Your task to perform on an android device: Search for "usb-a to usb-b" on amazon.com, select the first entry, add it to the cart, then select checkout. Image 0: 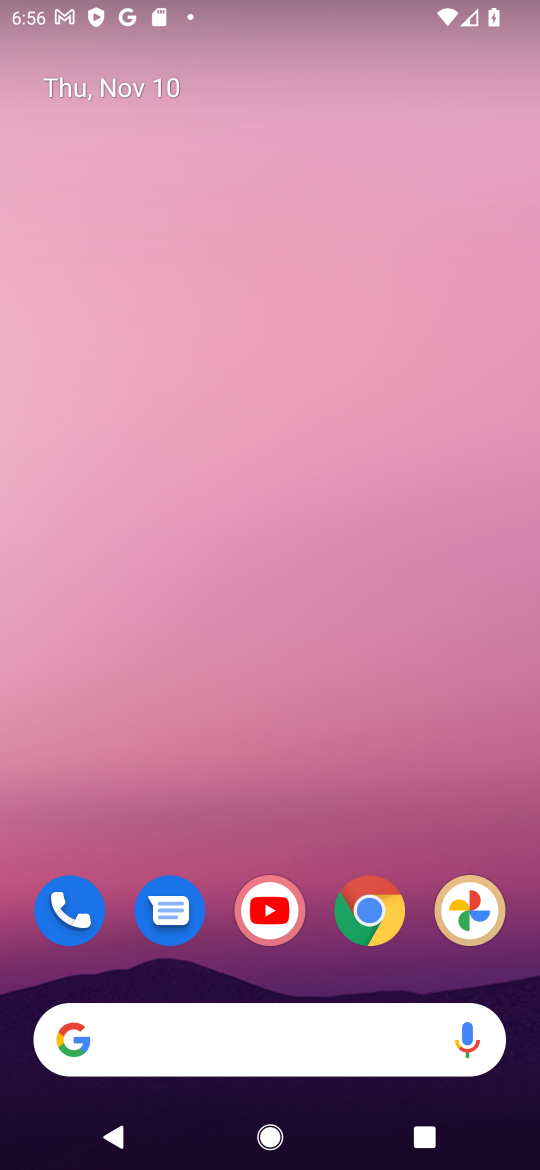
Step 0: click (369, 907)
Your task to perform on an android device: Search for "usb-a to usb-b" on amazon.com, select the first entry, add it to the cart, then select checkout. Image 1: 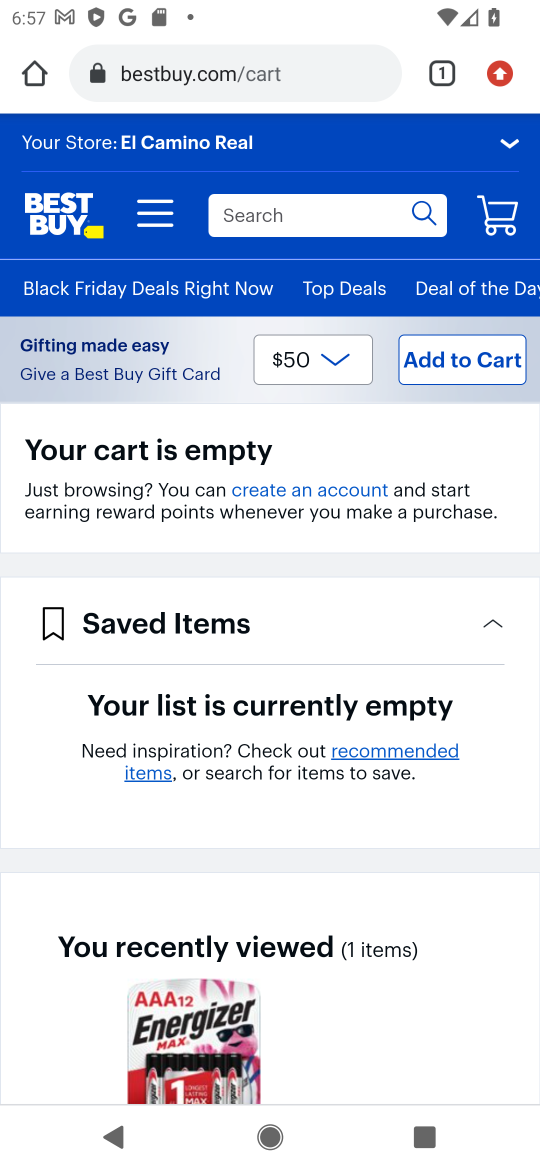
Step 1: click (274, 68)
Your task to perform on an android device: Search for "usb-a to usb-b" on amazon.com, select the first entry, add it to the cart, then select checkout. Image 2: 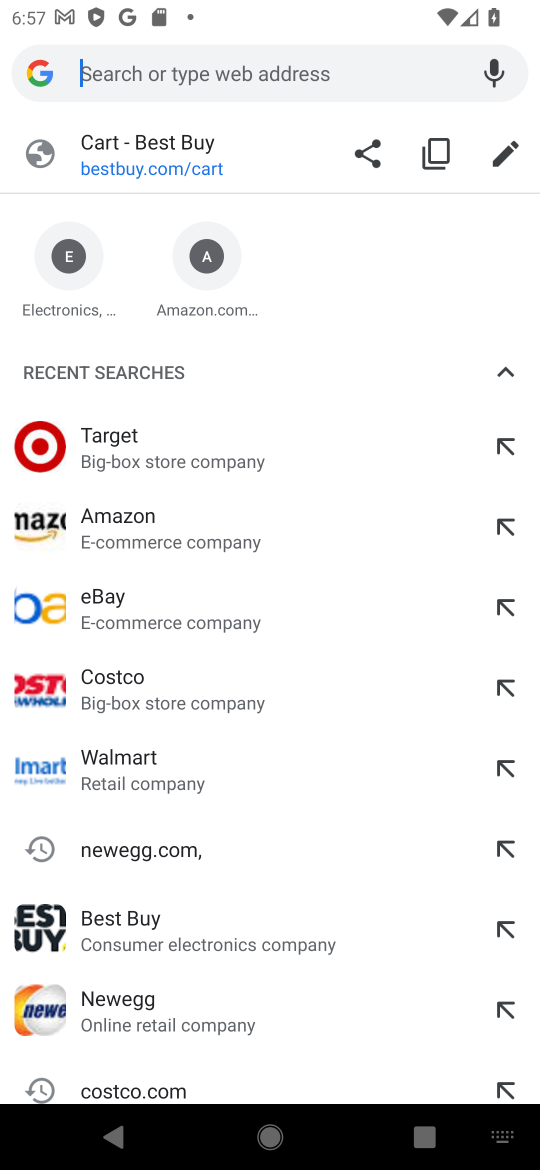
Step 2: type "amazon.com"
Your task to perform on an android device: Search for "usb-a to usb-b" on amazon.com, select the first entry, add it to the cart, then select checkout. Image 3: 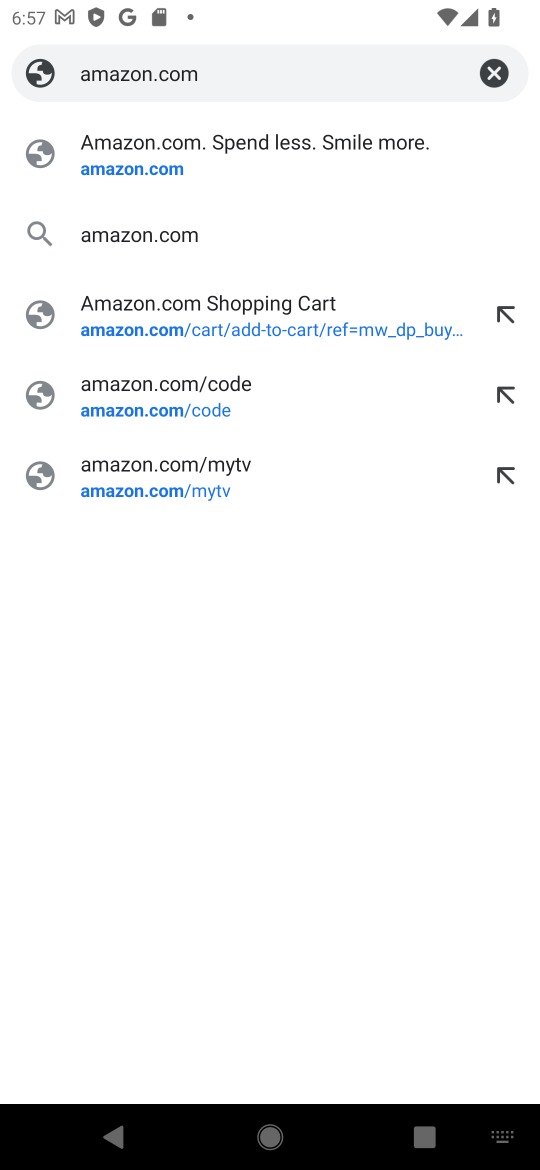
Step 3: click (182, 237)
Your task to perform on an android device: Search for "usb-a to usb-b" on amazon.com, select the first entry, add it to the cart, then select checkout. Image 4: 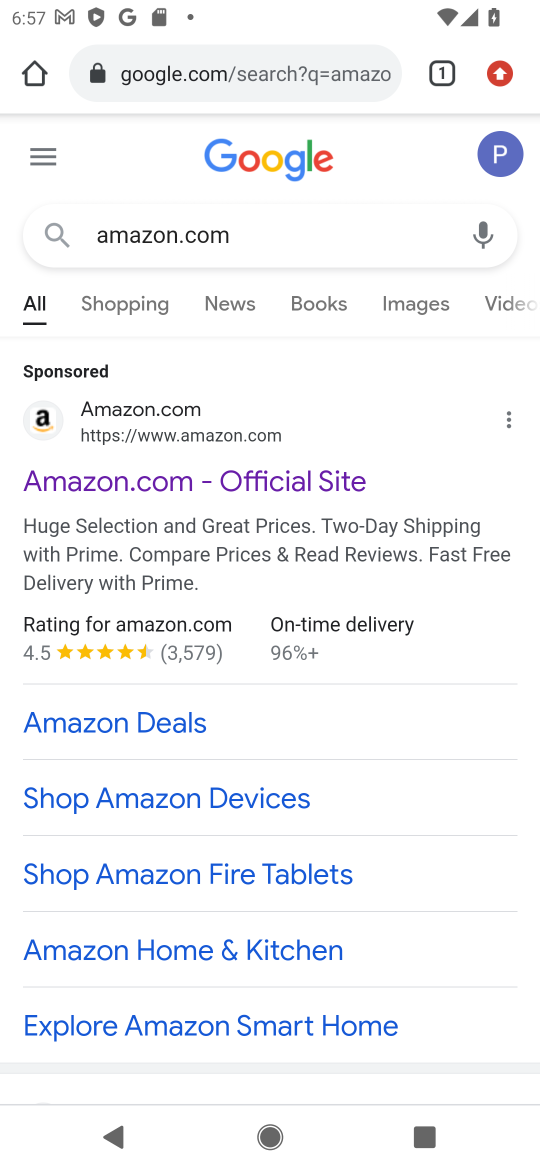
Step 4: drag from (410, 836) to (402, 498)
Your task to perform on an android device: Search for "usb-a to usb-b" on amazon.com, select the first entry, add it to the cart, then select checkout. Image 5: 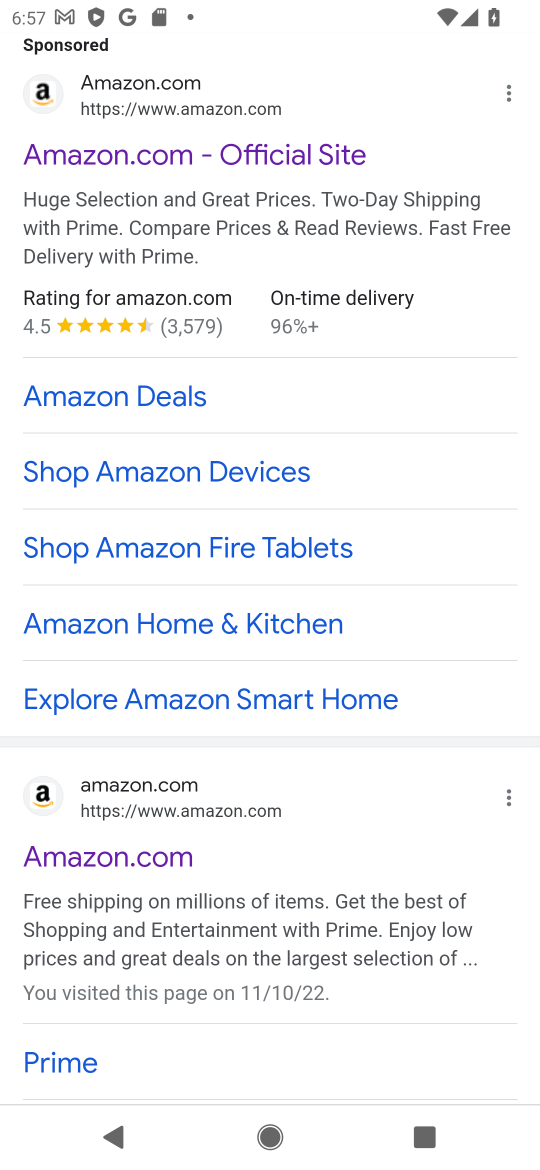
Step 5: click (188, 859)
Your task to perform on an android device: Search for "usb-a to usb-b" on amazon.com, select the first entry, add it to the cart, then select checkout. Image 6: 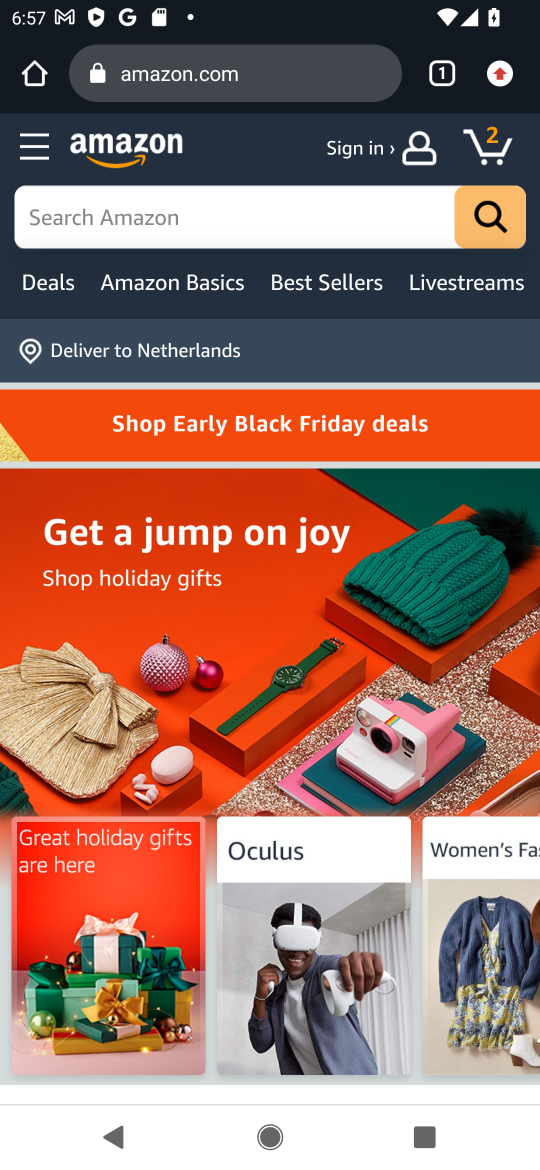
Step 6: click (231, 212)
Your task to perform on an android device: Search for "usb-a to usb-b" on amazon.com, select the first entry, add it to the cart, then select checkout. Image 7: 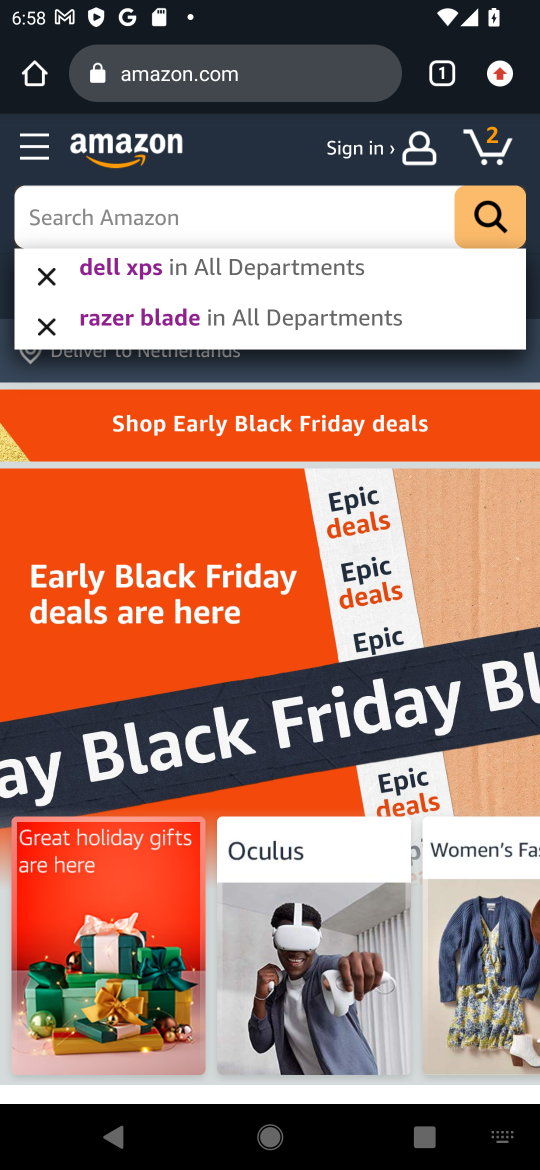
Step 7: type "usb-a to usb-b"
Your task to perform on an android device: Search for "usb-a to usb-b" on amazon.com, select the first entry, add it to the cart, then select checkout. Image 8: 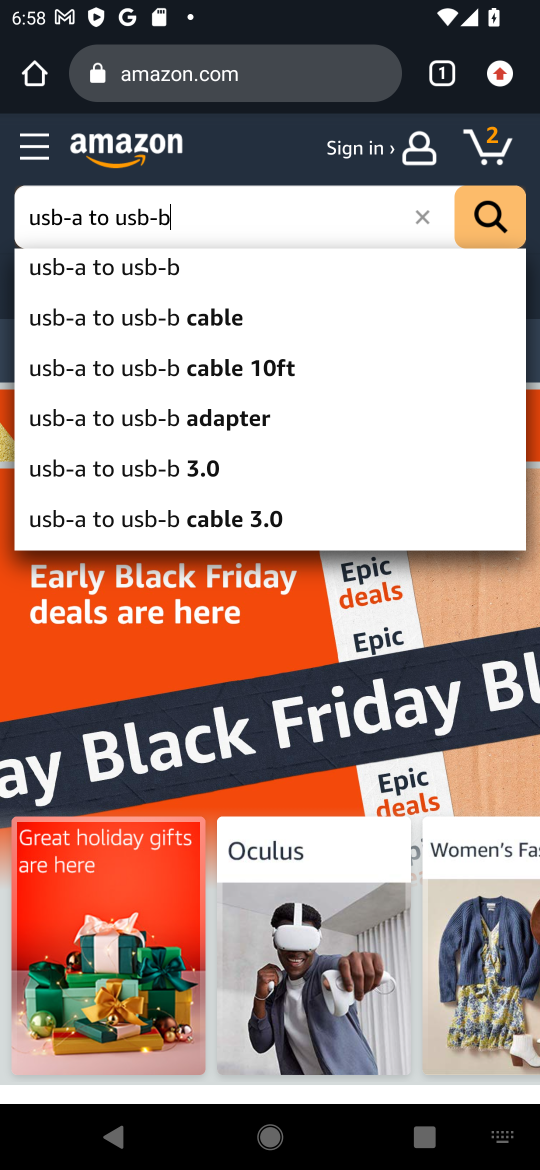
Step 8: click (164, 264)
Your task to perform on an android device: Search for "usb-a to usb-b" on amazon.com, select the first entry, add it to the cart, then select checkout. Image 9: 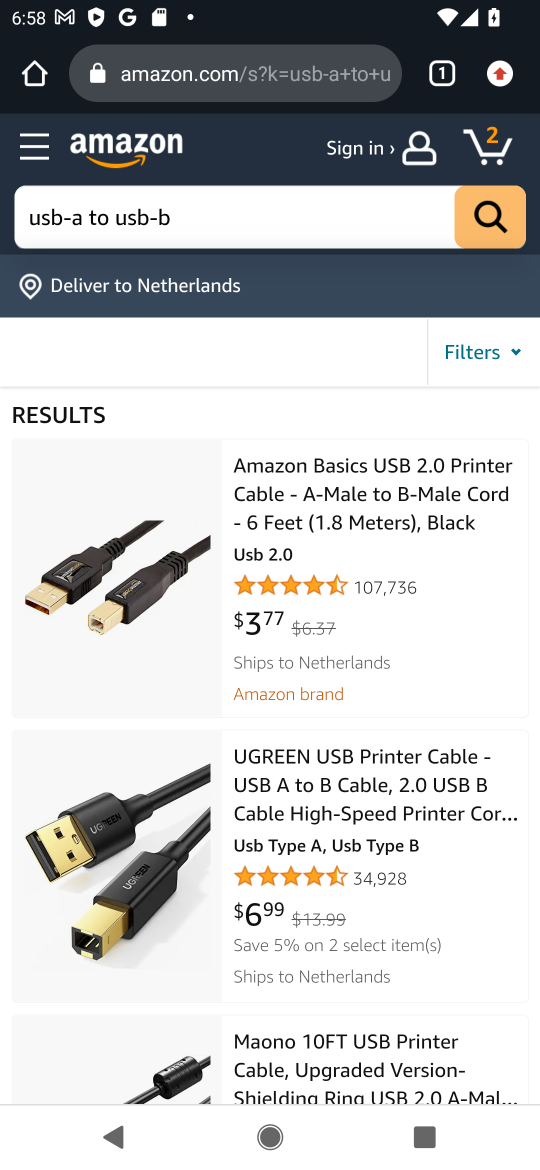
Step 9: click (344, 487)
Your task to perform on an android device: Search for "usb-a to usb-b" on amazon.com, select the first entry, add it to the cart, then select checkout. Image 10: 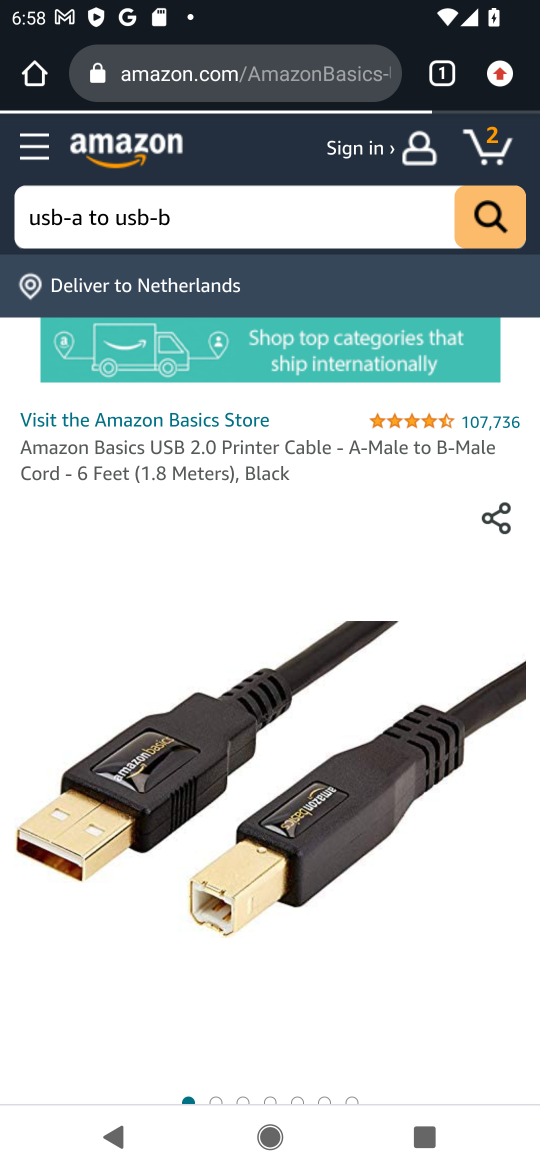
Step 10: drag from (357, 929) to (422, 493)
Your task to perform on an android device: Search for "usb-a to usb-b" on amazon.com, select the first entry, add it to the cart, then select checkout. Image 11: 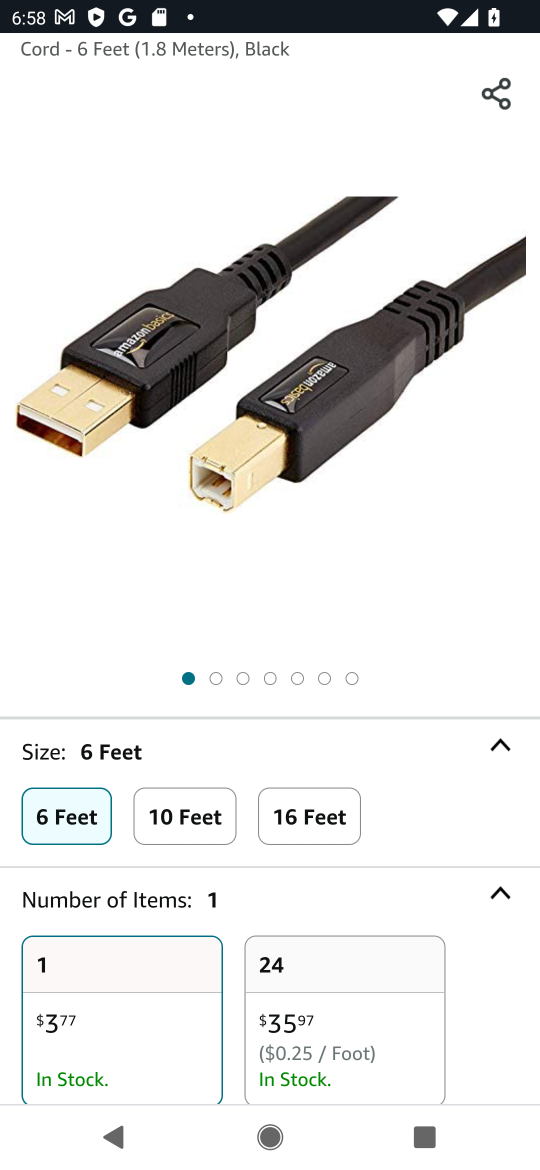
Step 11: drag from (373, 592) to (427, 254)
Your task to perform on an android device: Search for "usb-a to usb-b" on amazon.com, select the first entry, add it to the cart, then select checkout. Image 12: 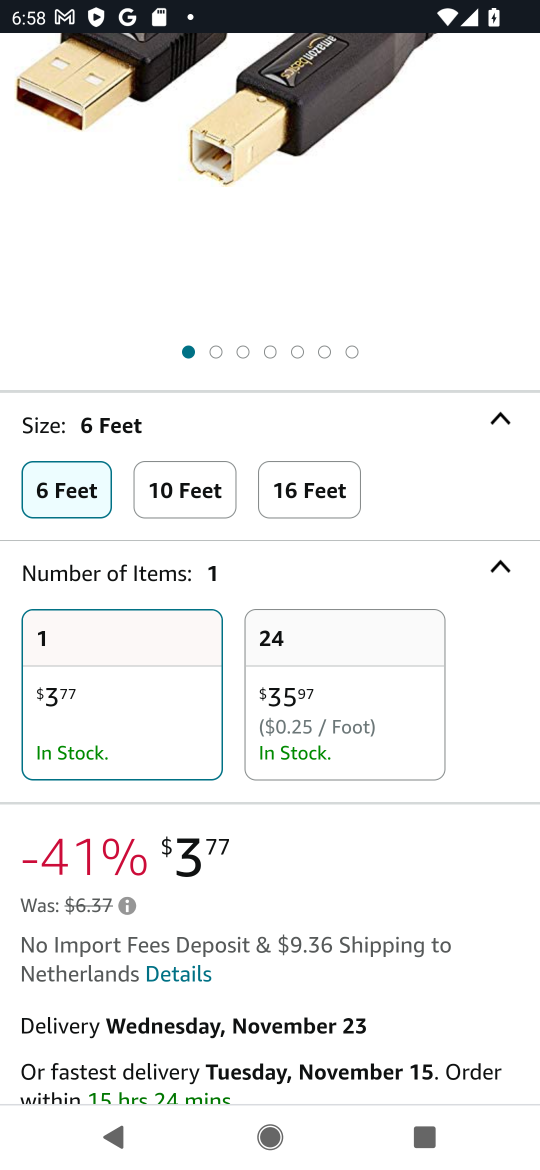
Step 12: drag from (322, 858) to (355, 574)
Your task to perform on an android device: Search for "usb-a to usb-b" on amazon.com, select the first entry, add it to the cart, then select checkout. Image 13: 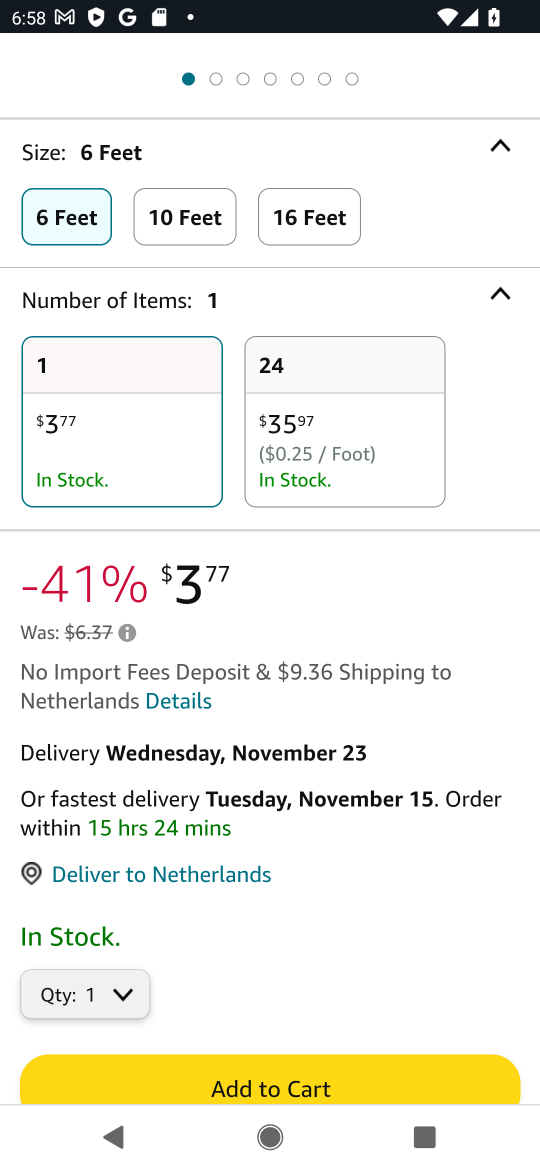
Step 13: drag from (299, 1001) to (351, 738)
Your task to perform on an android device: Search for "usb-a to usb-b" on amazon.com, select the first entry, add it to the cart, then select checkout. Image 14: 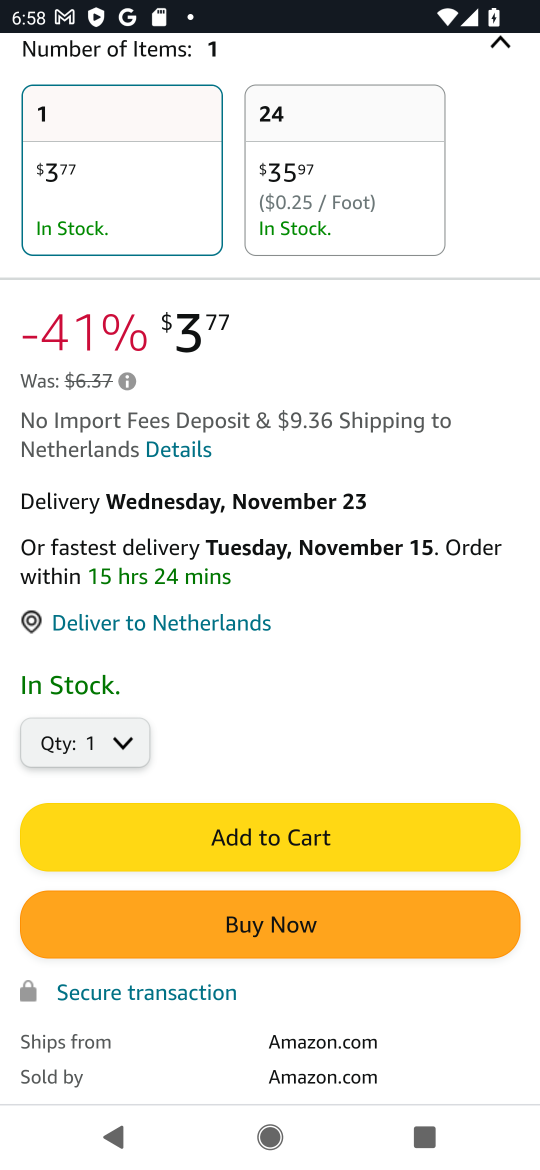
Step 14: click (289, 836)
Your task to perform on an android device: Search for "usb-a to usb-b" on amazon.com, select the first entry, add it to the cart, then select checkout. Image 15: 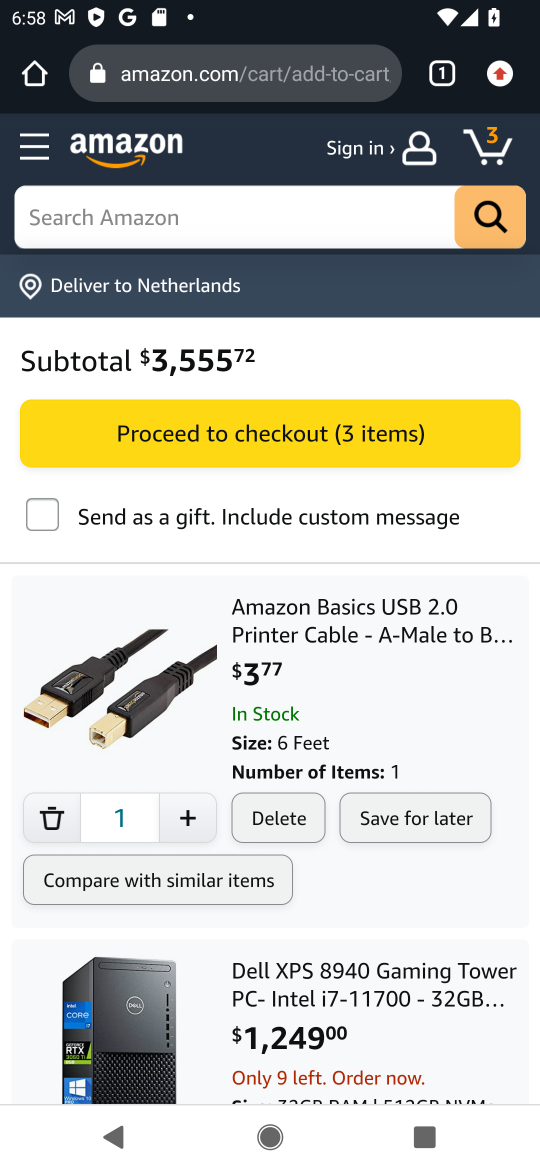
Step 15: click (393, 417)
Your task to perform on an android device: Search for "usb-a to usb-b" on amazon.com, select the first entry, add it to the cart, then select checkout. Image 16: 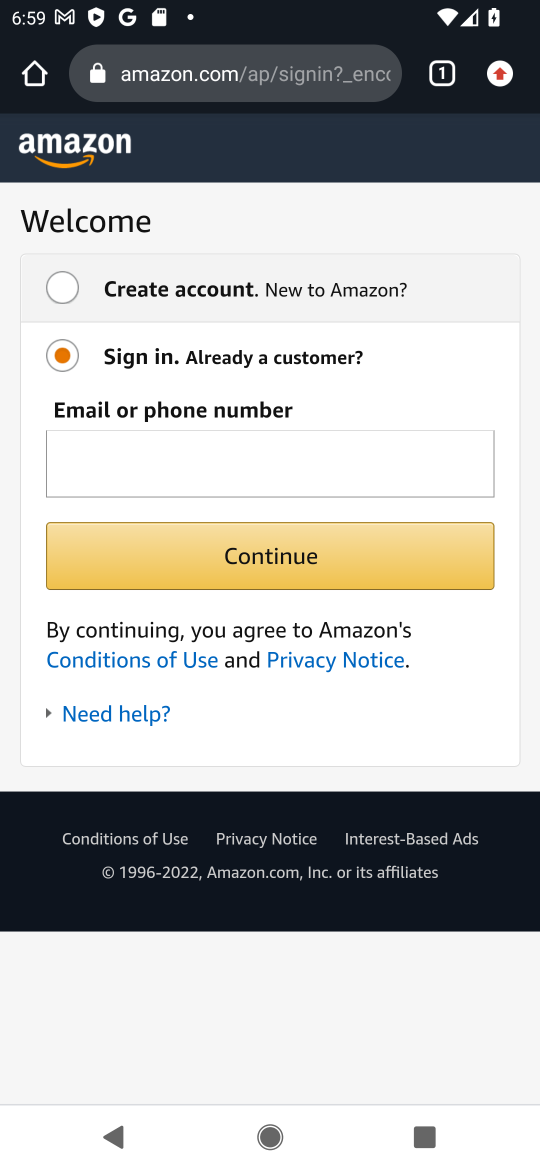
Step 16: task complete